Your task to perform on an android device: Go to privacy settings Image 0: 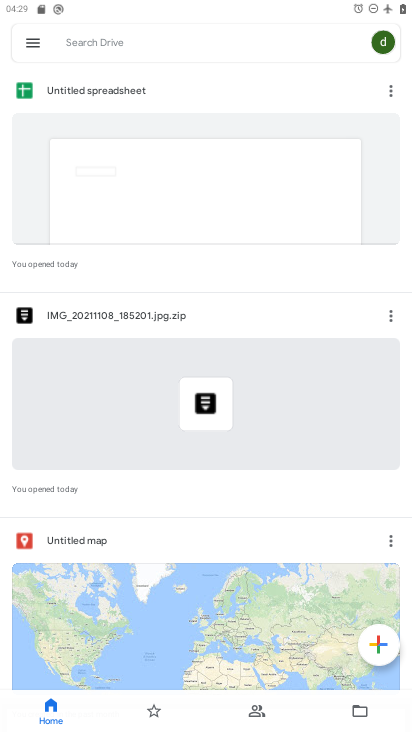
Step 0: press home button
Your task to perform on an android device: Go to privacy settings Image 1: 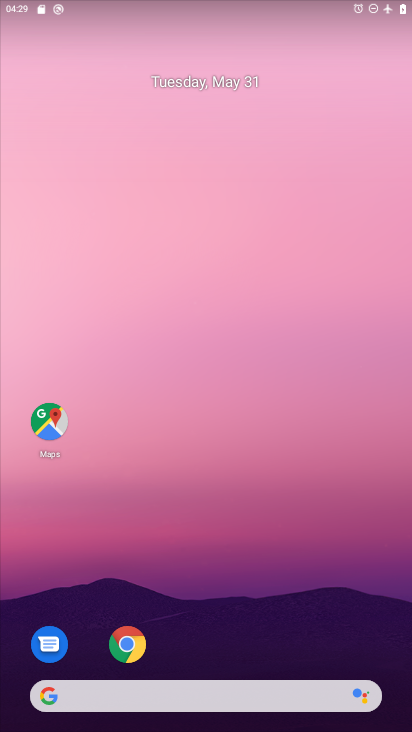
Step 1: drag from (240, 574) to (229, 146)
Your task to perform on an android device: Go to privacy settings Image 2: 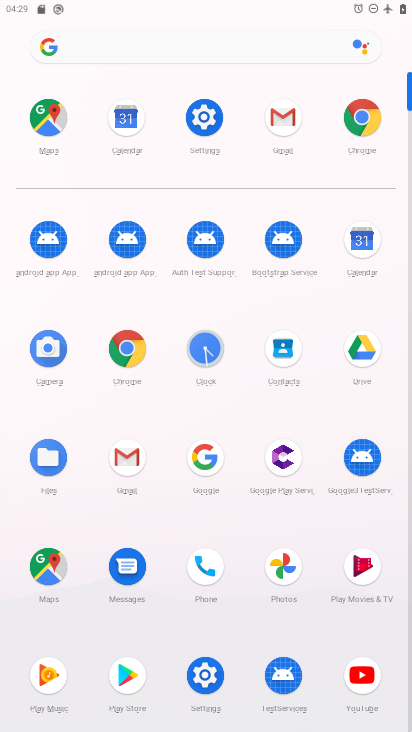
Step 2: click (208, 111)
Your task to perform on an android device: Go to privacy settings Image 3: 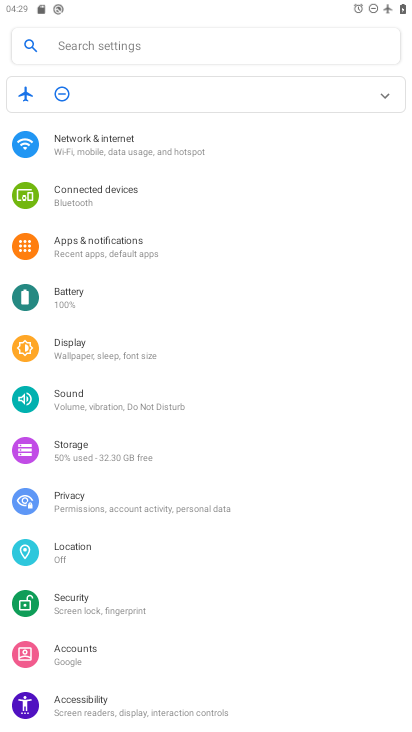
Step 3: drag from (150, 559) to (187, 174)
Your task to perform on an android device: Go to privacy settings Image 4: 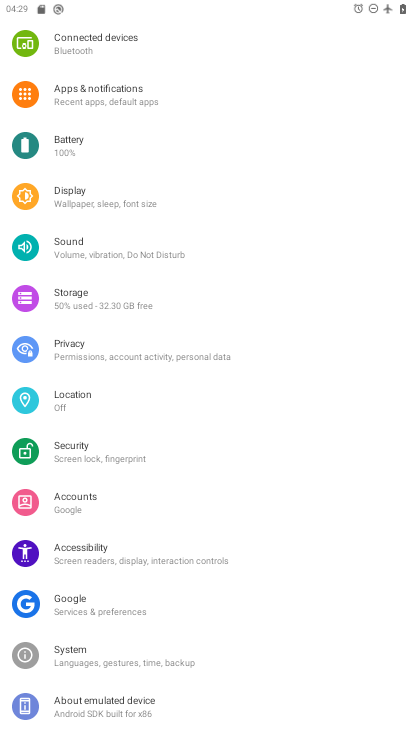
Step 4: click (72, 348)
Your task to perform on an android device: Go to privacy settings Image 5: 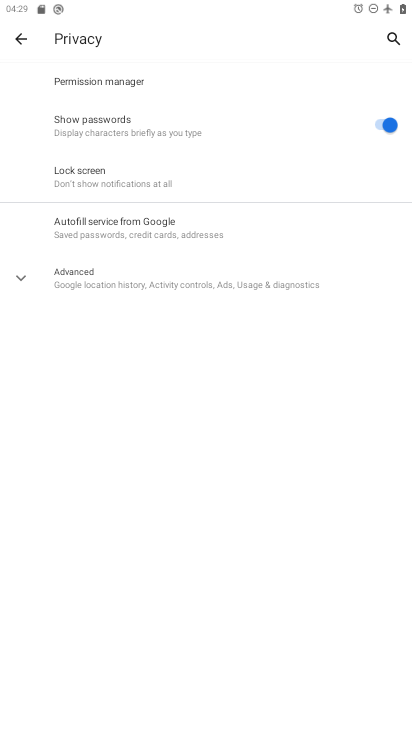
Step 5: task complete